Your task to perform on an android device: Open the map Image 0: 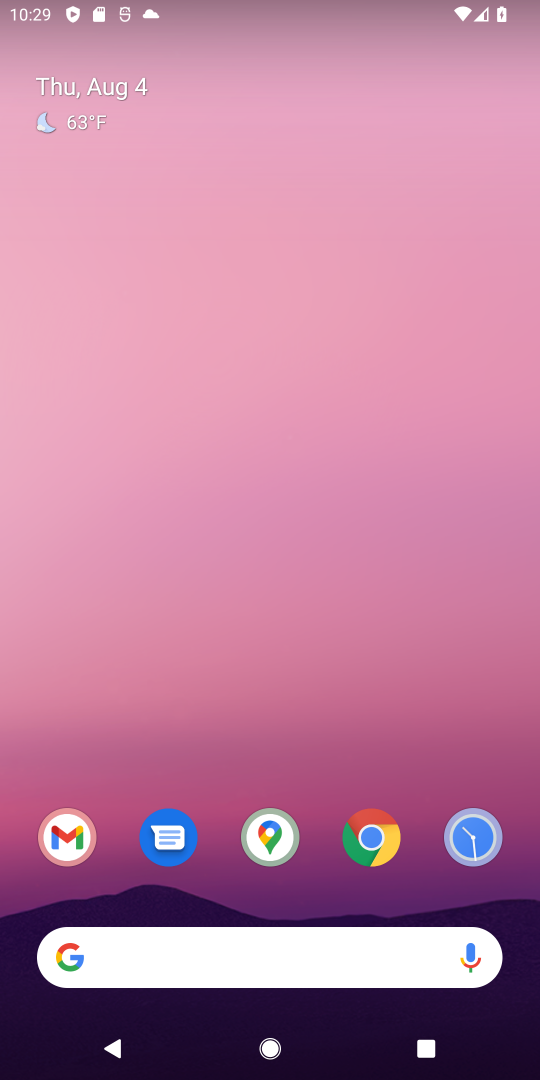
Step 0: drag from (251, 880) to (253, 307)
Your task to perform on an android device: Open the map Image 1: 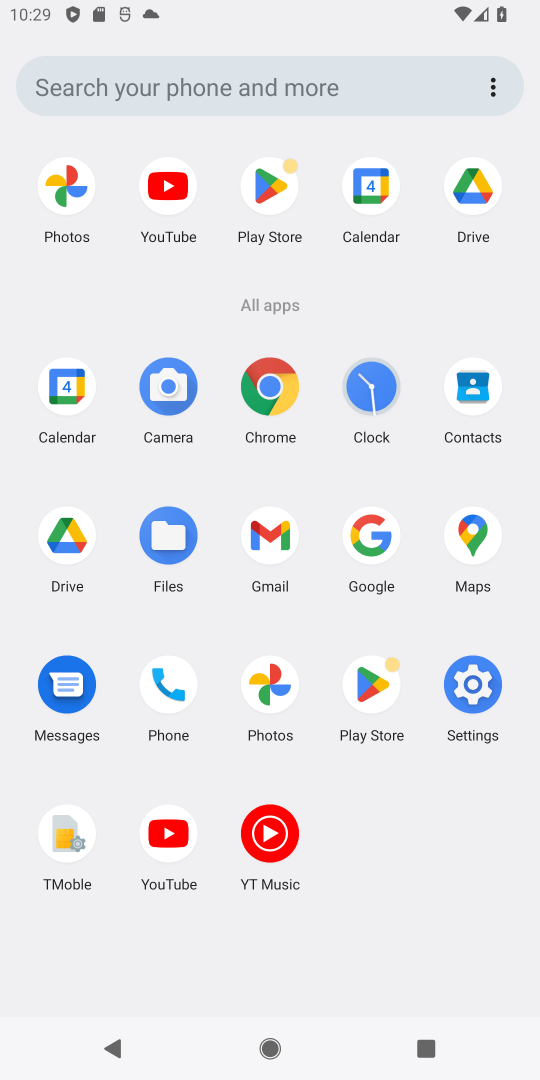
Step 1: click (472, 520)
Your task to perform on an android device: Open the map Image 2: 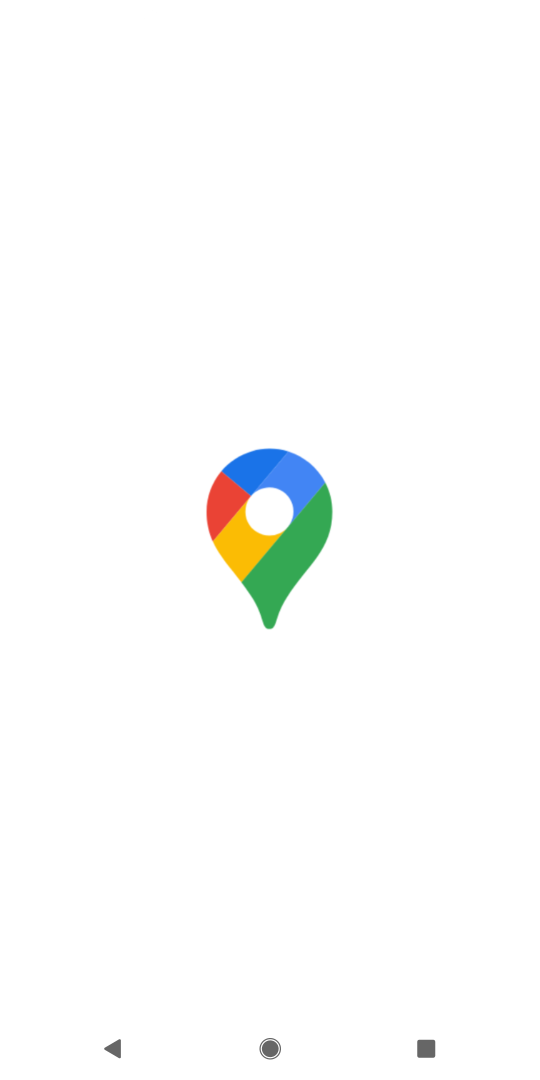
Step 2: task complete